Your task to perform on an android device: move a message to another label in the gmail app Image 0: 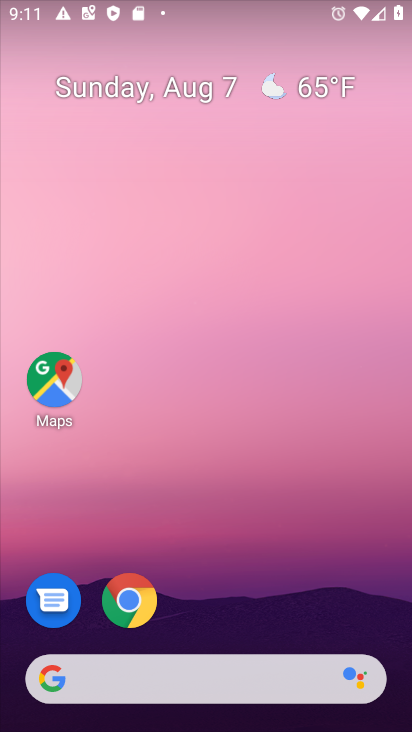
Step 0: drag from (197, 484) to (154, 14)
Your task to perform on an android device: move a message to another label in the gmail app Image 1: 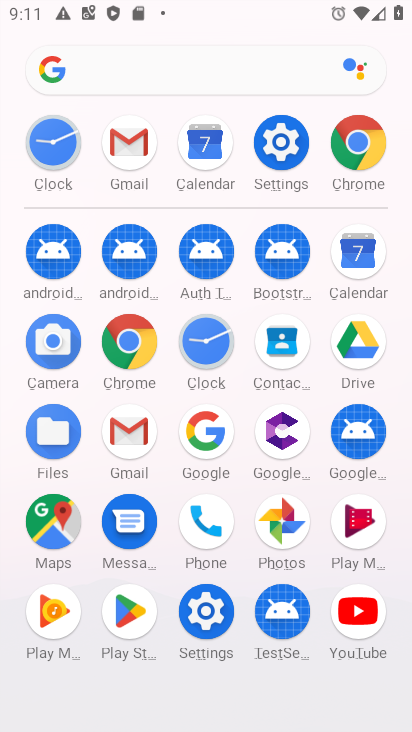
Step 1: click (126, 141)
Your task to perform on an android device: move a message to another label in the gmail app Image 2: 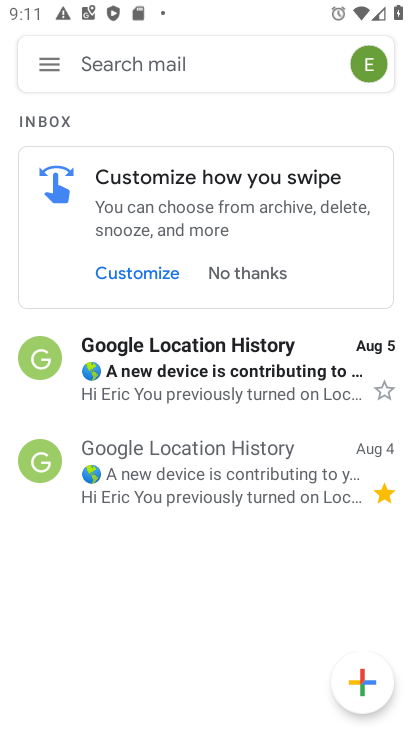
Step 2: click (251, 388)
Your task to perform on an android device: move a message to another label in the gmail app Image 3: 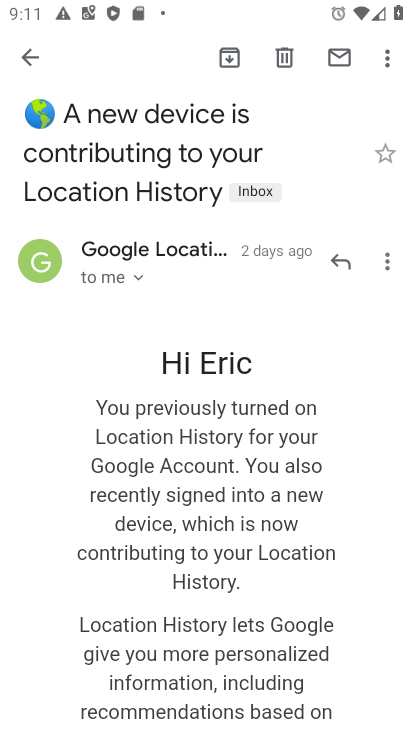
Step 3: click (244, 200)
Your task to perform on an android device: move a message to another label in the gmail app Image 4: 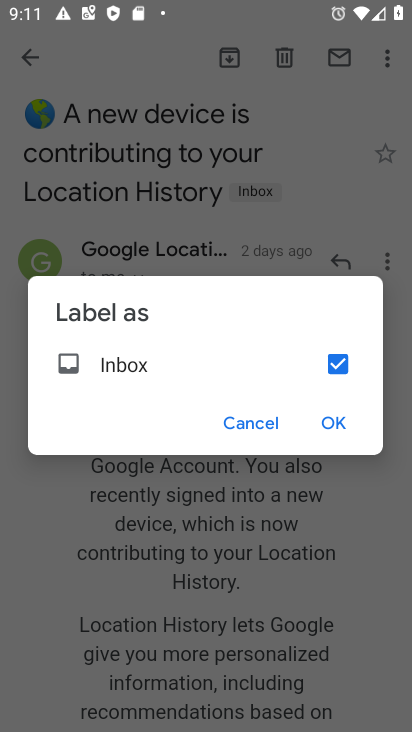
Step 4: click (336, 360)
Your task to perform on an android device: move a message to another label in the gmail app Image 5: 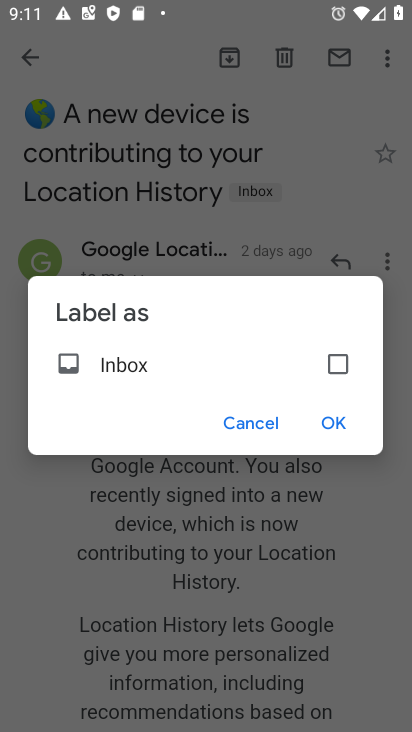
Step 5: click (336, 420)
Your task to perform on an android device: move a message to another label in the gmail app Image 6: 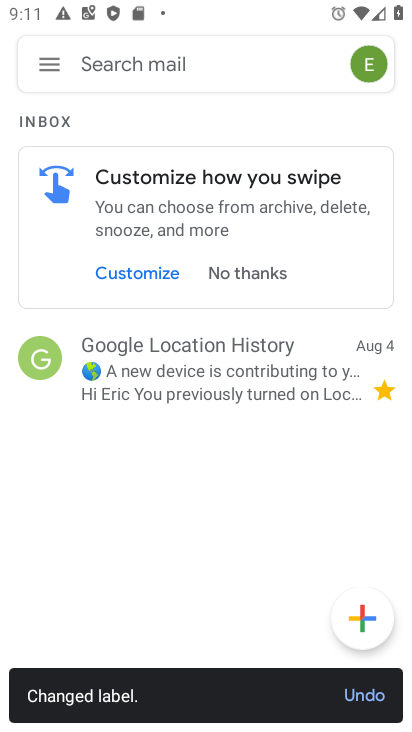
Step 6: task complete